Your task to perform on an android device: Open Wikipedia Image 0: 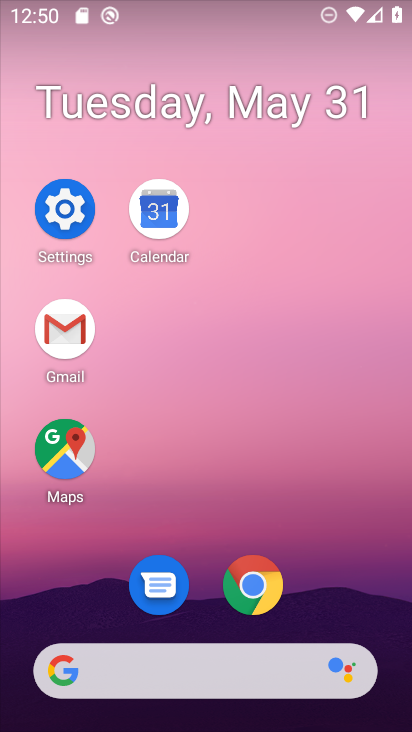
Step 0: click (264, 591)
Your task to perform on an android device: Open Wikipedia Image 1: 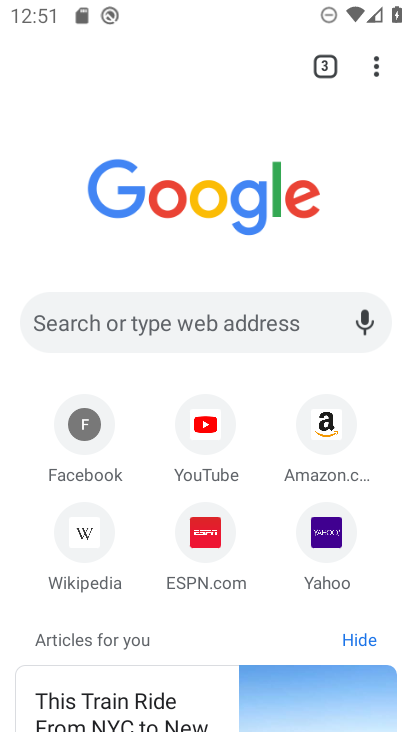
Step 1: click (94, 537)
Your task to perform on an android device: Open Wikipedia Image 2: 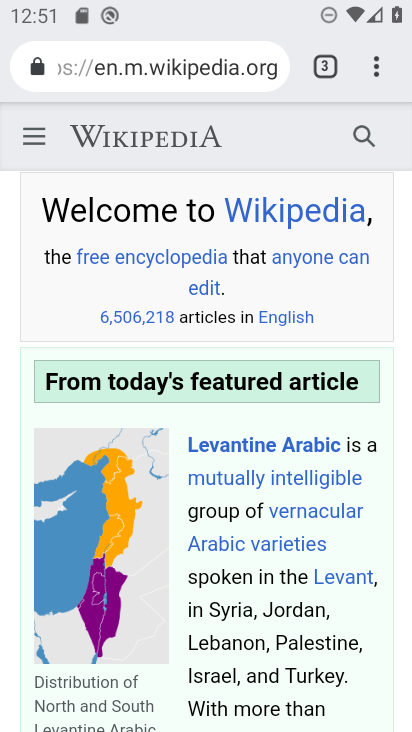
Step 2: task complete